Your task to perform on an android device: Open ESPN.com Image 0: 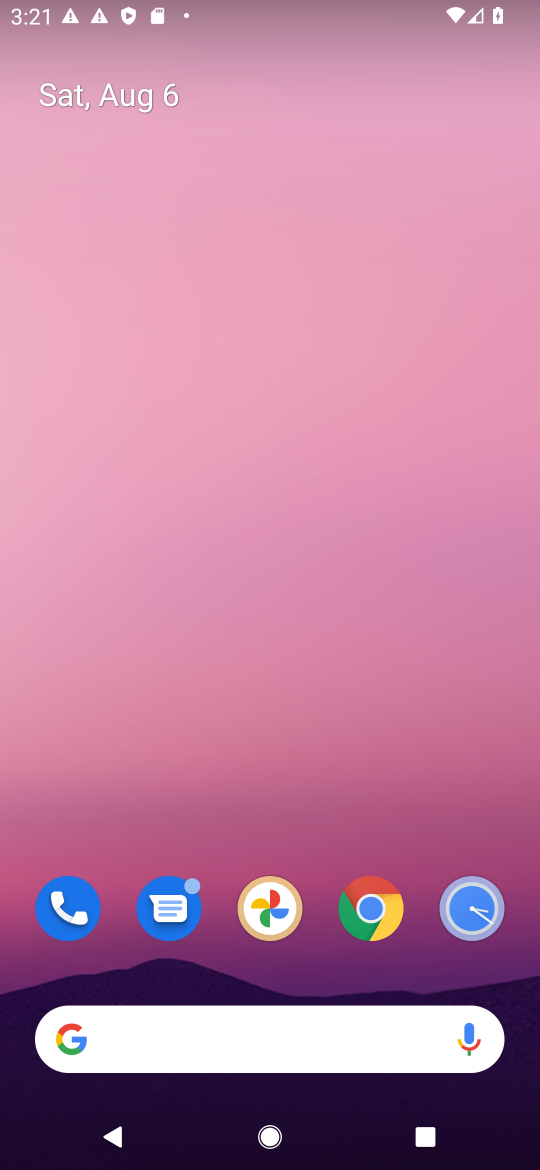
Step 0: click (384, 921)
Your task to perform on an android device: Open ESPN.com Image 1: 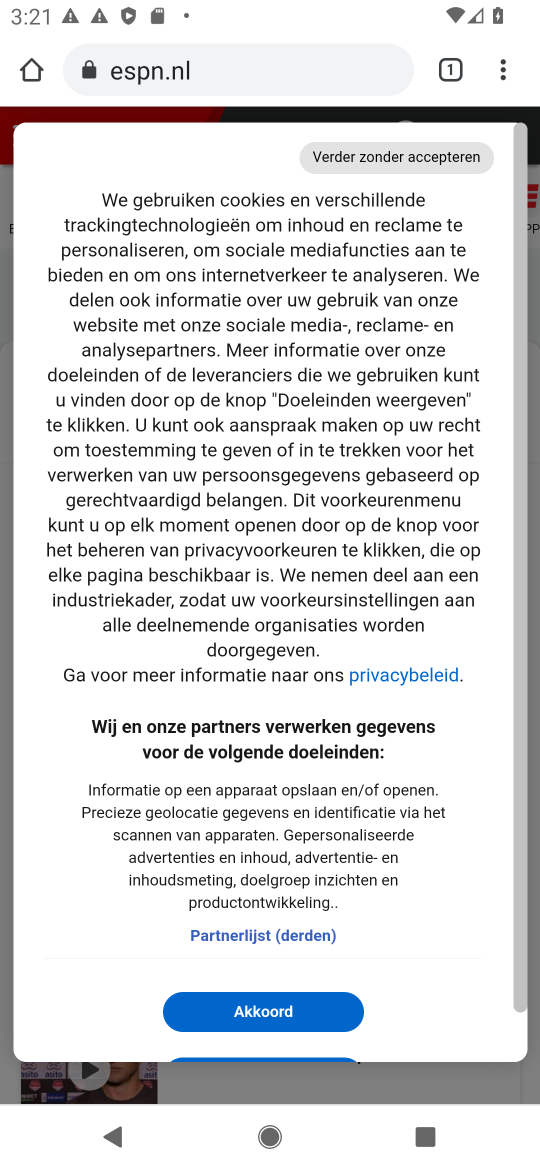
Step 1: click (289, 1005)
Your task to perform on an android device: Open ESPN.com Image 2: 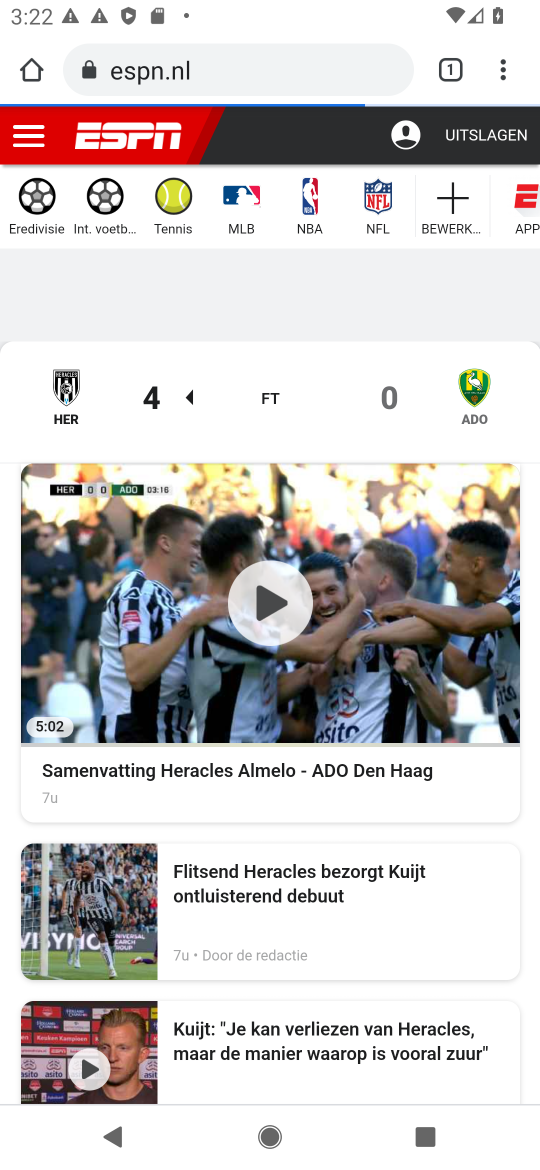
Step 2: click (123, 135)
Your task to perform on an android device: Open ESPN.com Image 3: 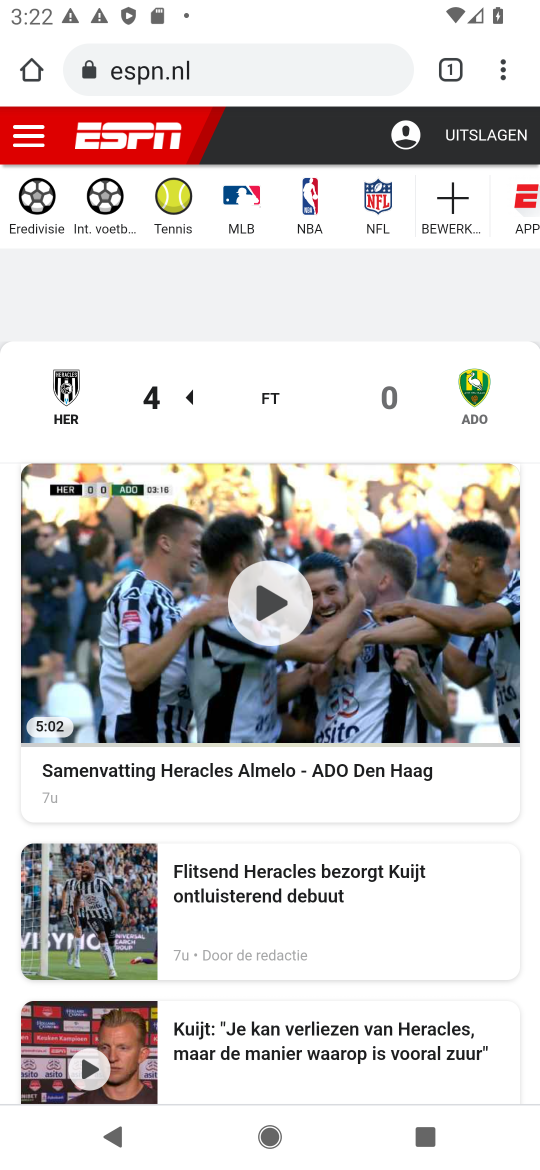
Step 3: task complete